Your task to perform on an android device: check battery use Image 0: 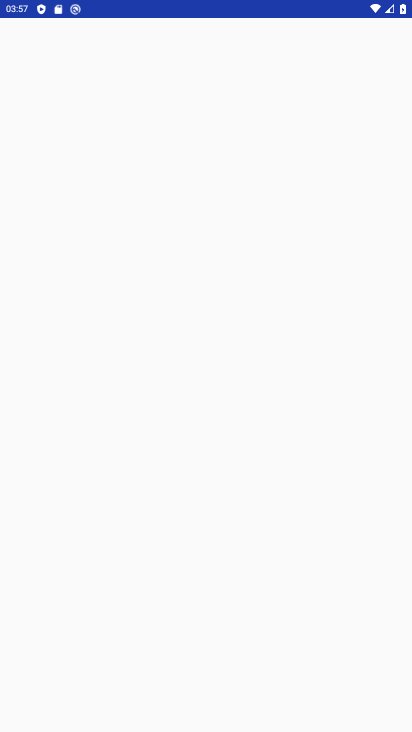
Step 0: drag from (395, 672) to (331, 29)
Your task to perform on an android device: check battery use Image 1: 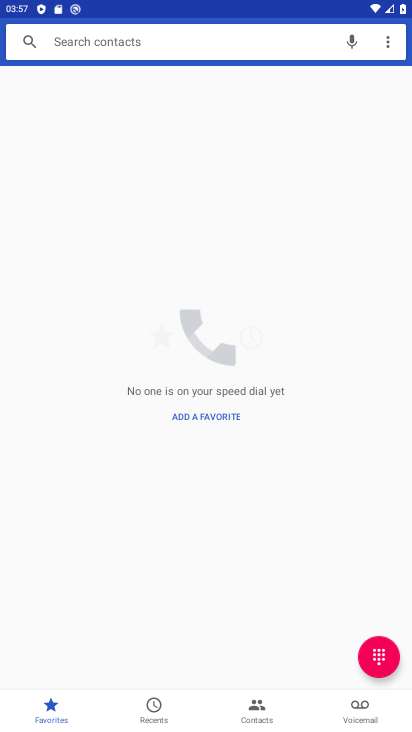
Step 1: press home button
Your task to perform on an android device: check battery use Image 2: 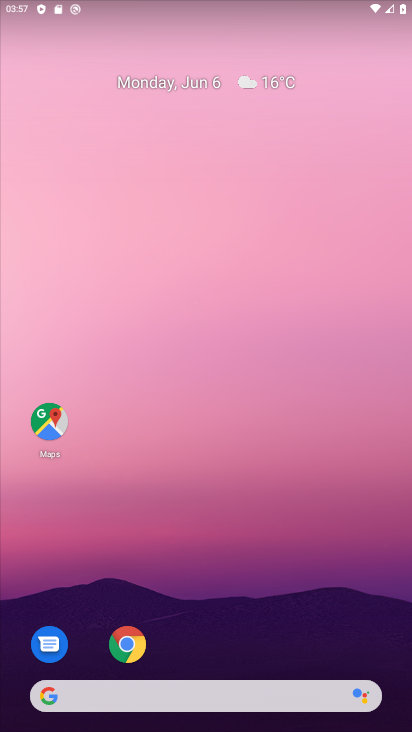
Step 2: drag from (392, 695) to (299, 87)
Your task to perform on an android device: check battery use Image 3: 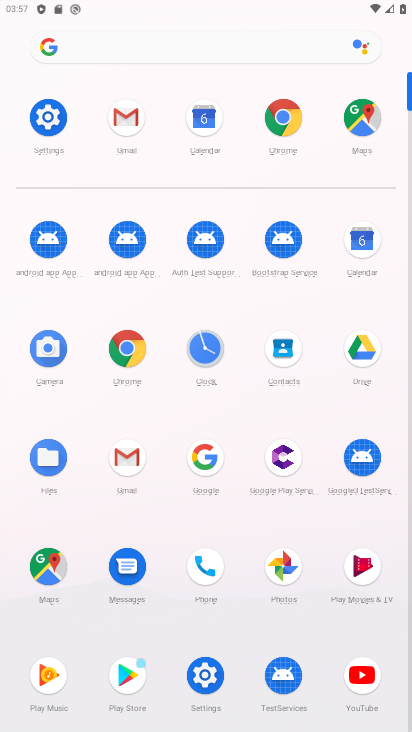
Step 3: click (36, 105)
Your task to perform on an android device: check battery use Image 4: 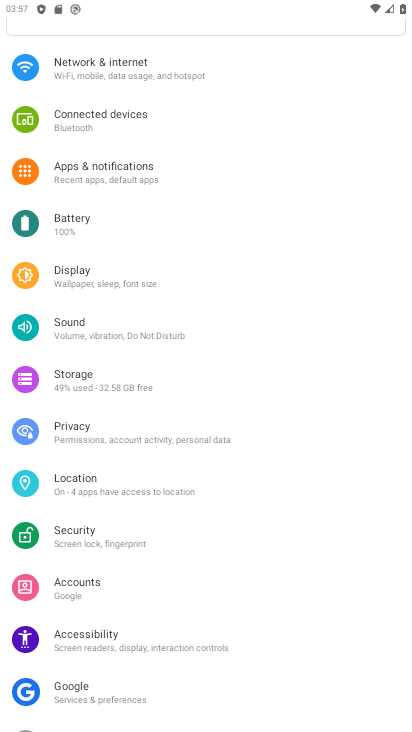
Step 4: click (90, 219)
Your task to perform on an android device: check battery use Image 5: 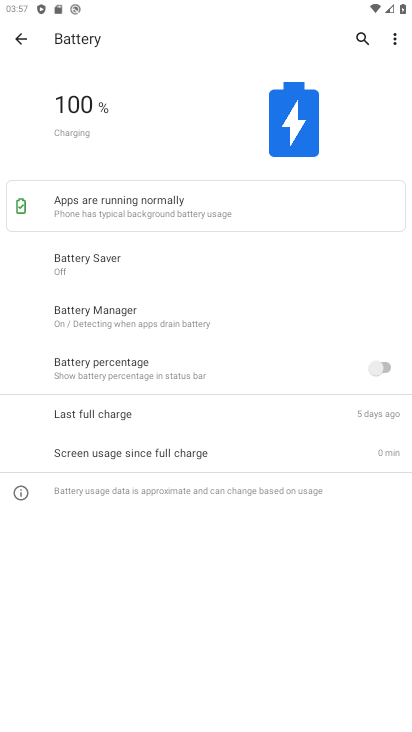
Step 5: task complete